Your task to perform on an android device: Set the phone to "Do not disturb". Image 0: 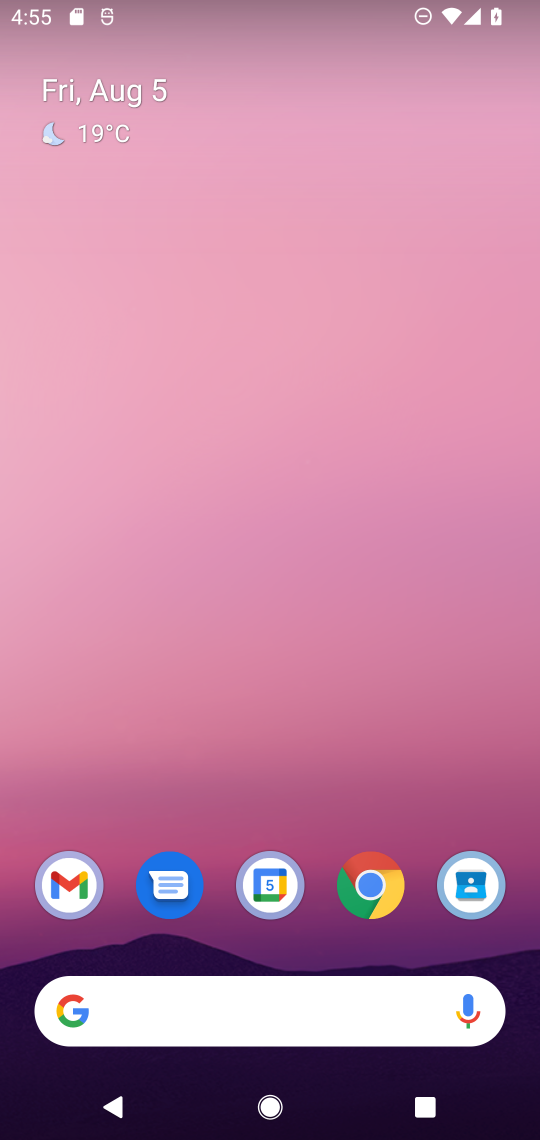
Step 0: drag from (307, 963) to (269, 47)
Your task to perform on an android device: Set the phone to "Do not disturb". Image 1: 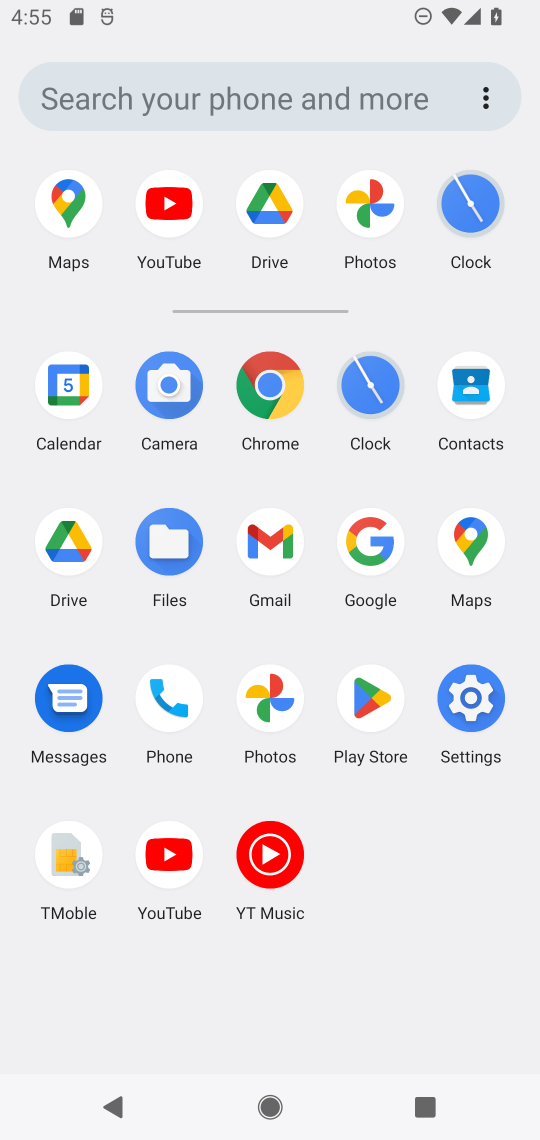
Step 1: click (477, 696)
Your task to perform on an android device: Set the phone to "Do not disturb". Image 2: 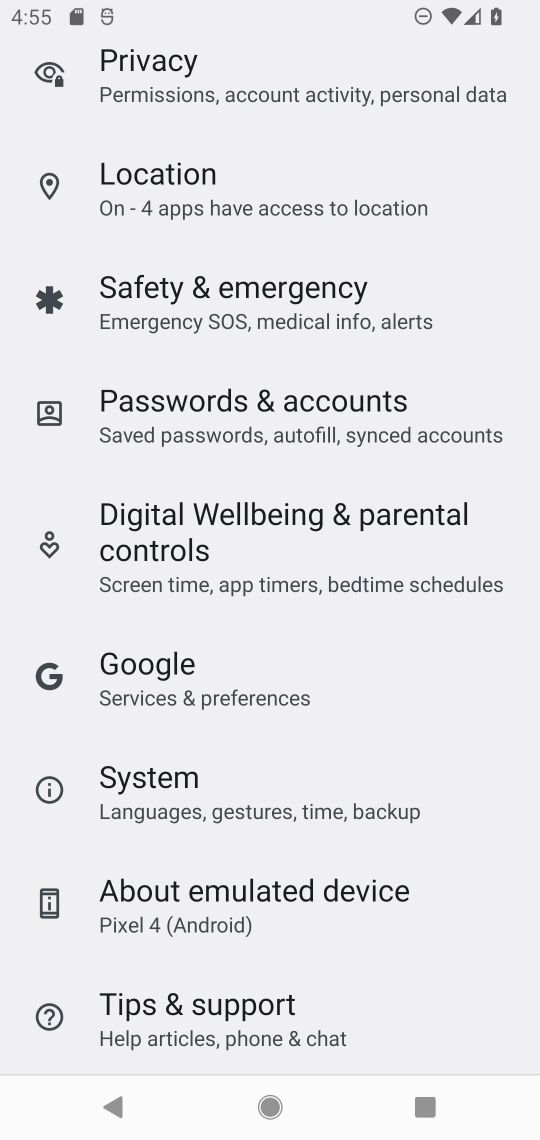
Step 2: drag from (147, 268) to (245, 826)
Your task to perform on an android device: Set the phone to "Do not disturb". Image 3: 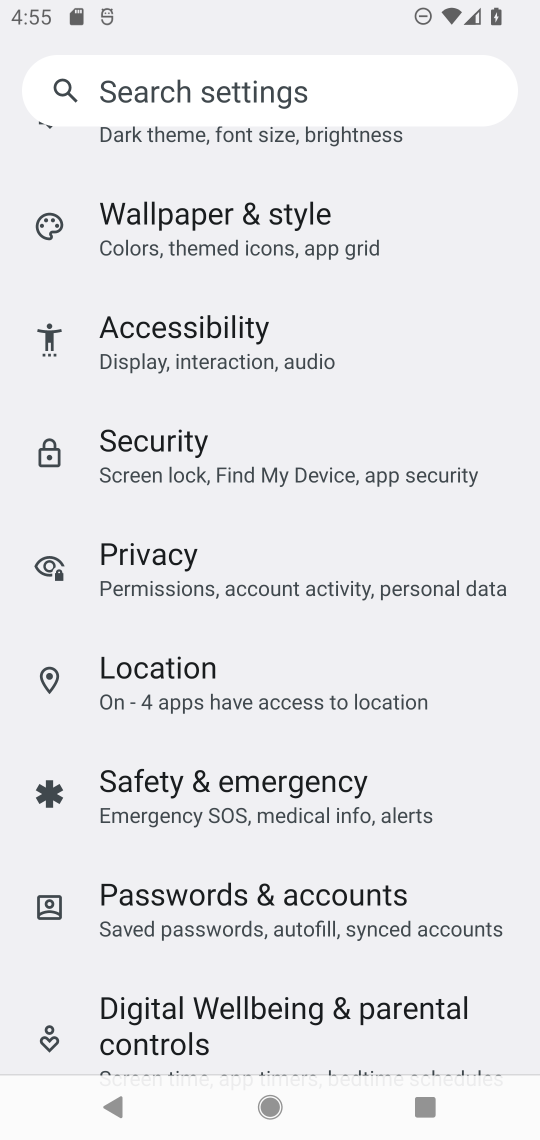
Step 3: drag from (205, 275) to (266, 795)
Your task to perform on an android device: Set the phone to "Do not disturb". Image 4: 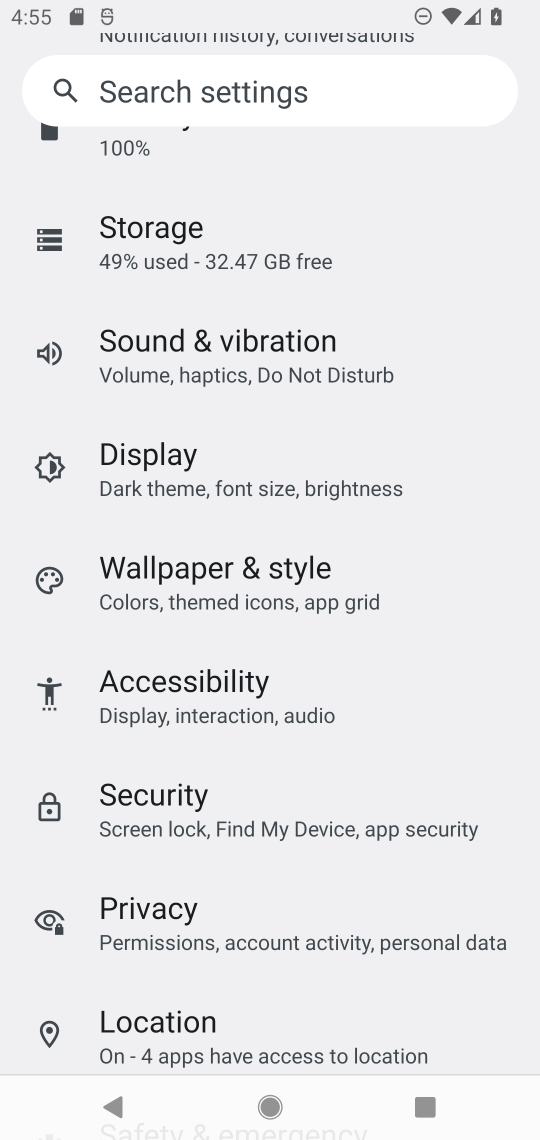
Step 4: drag from (211, 343) to (251, 729)
Your task to perform on an android device: Set the phone to "Do not disturb". Image 5: 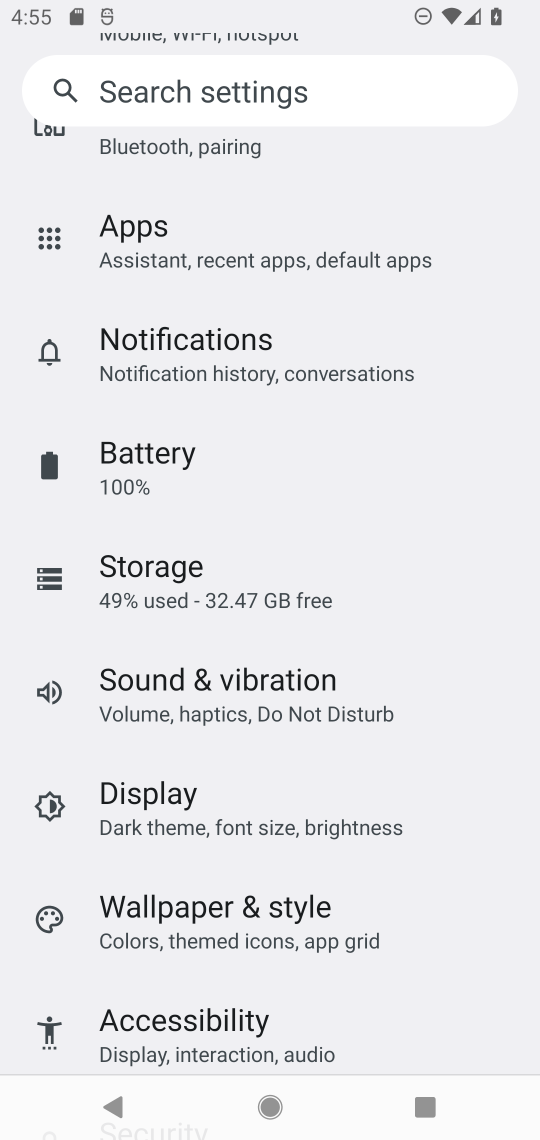
Step 5: click (269, 691)
Your task to perform on an android device: Set the phone to "Do not disturb". Image 6: 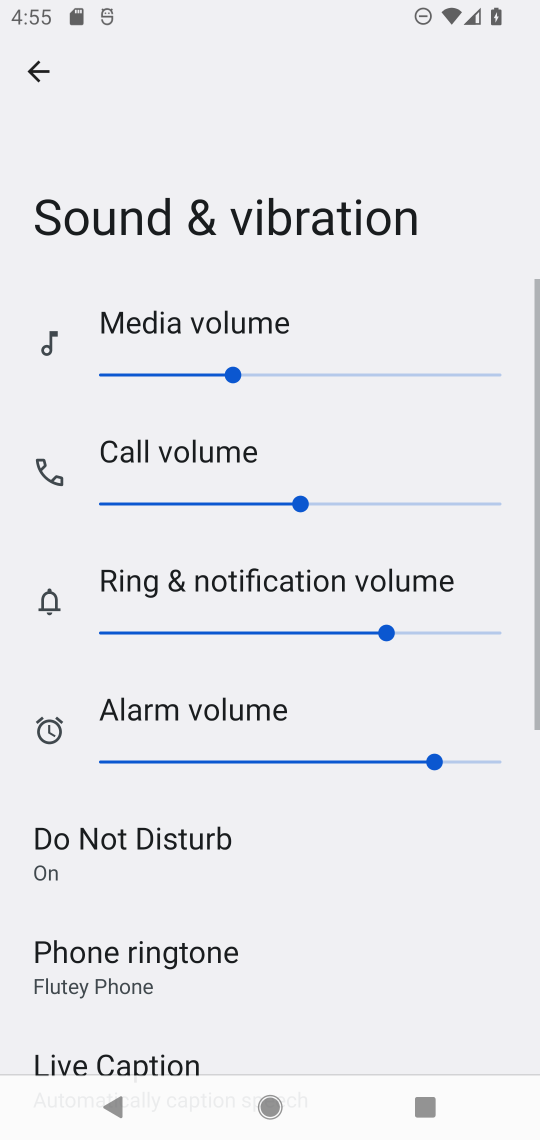
Step 6: drag from (259, 957) to (242, 437)
Your task to perform on an android device: Set the phone to "Do not disturb". Image 7: 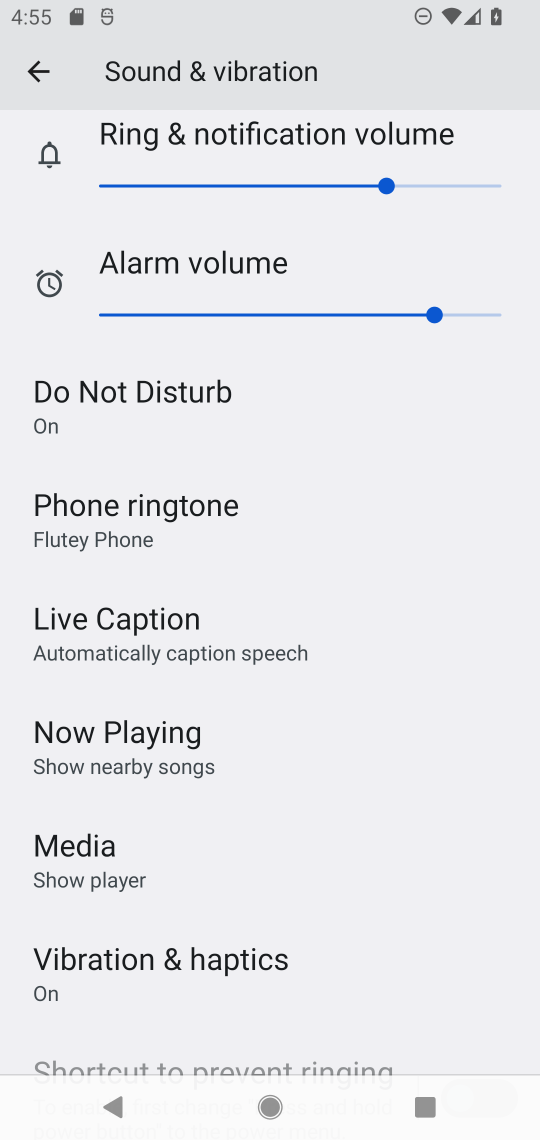
Step 7: drag from (227, 960) to (225, 411)
Your task to perform on an android device: Set the phone to "Do not disturb". Image 8: 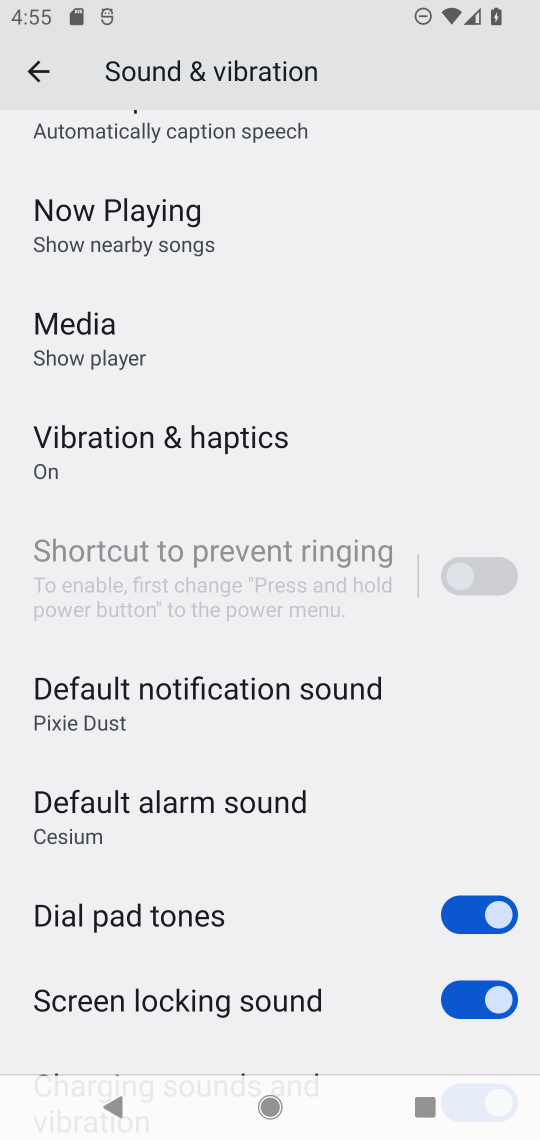
Step 8: drag from (249, 800) to (253, 873)
Your task to perform on an android device: Set the phone to "Do not disturb". Image 9: 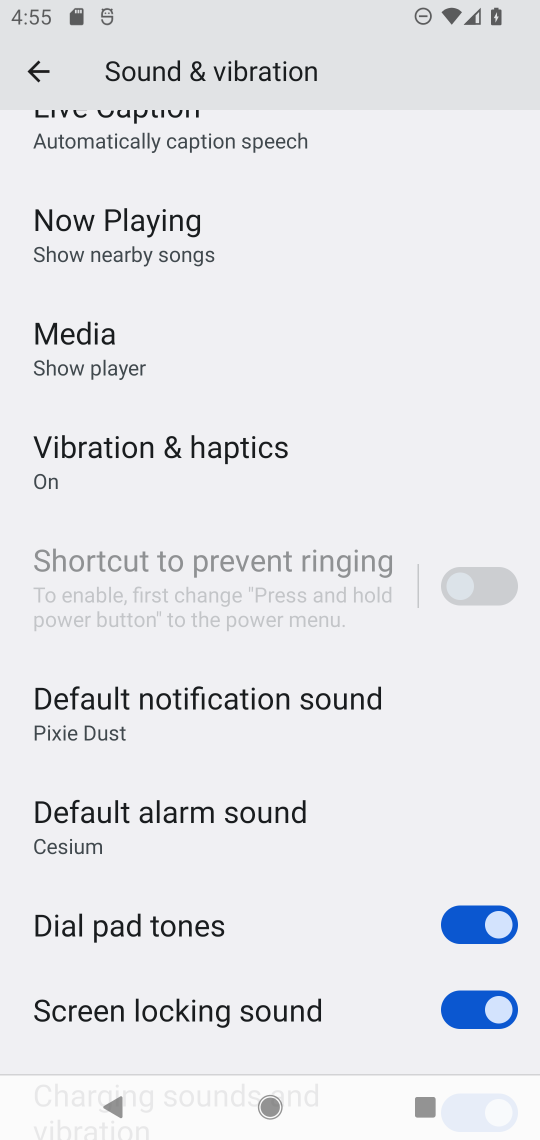
Step 9: drag from (312, 316) to (302, 849)
Your task to perform on an android device: Set the phone to "Do not disturb". Image 10: 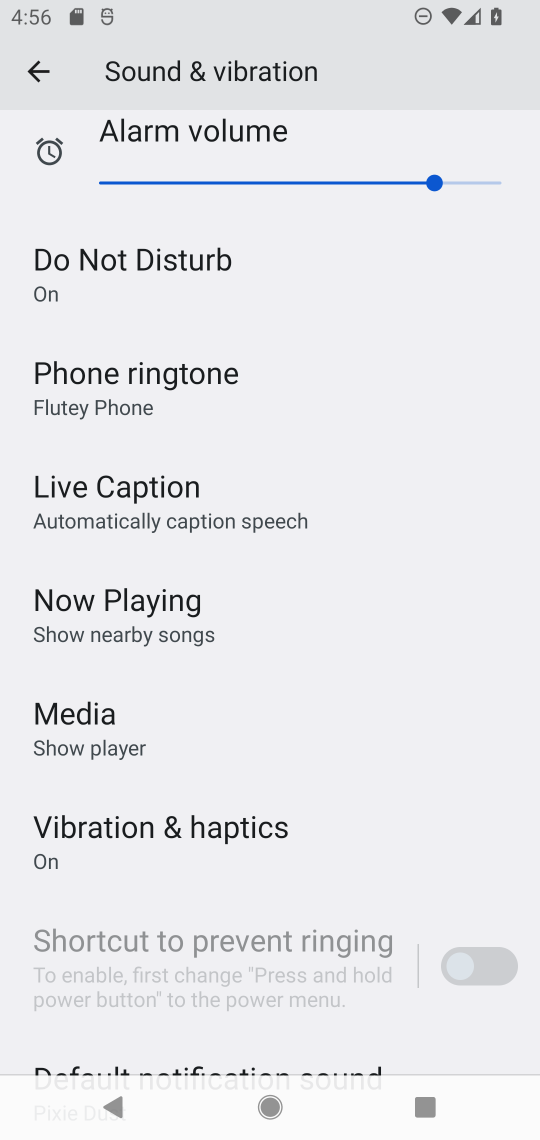
Step 10: click (109, 251)
Your task to perform on an android device: Set the phone to "Do not disturb". Image 11: 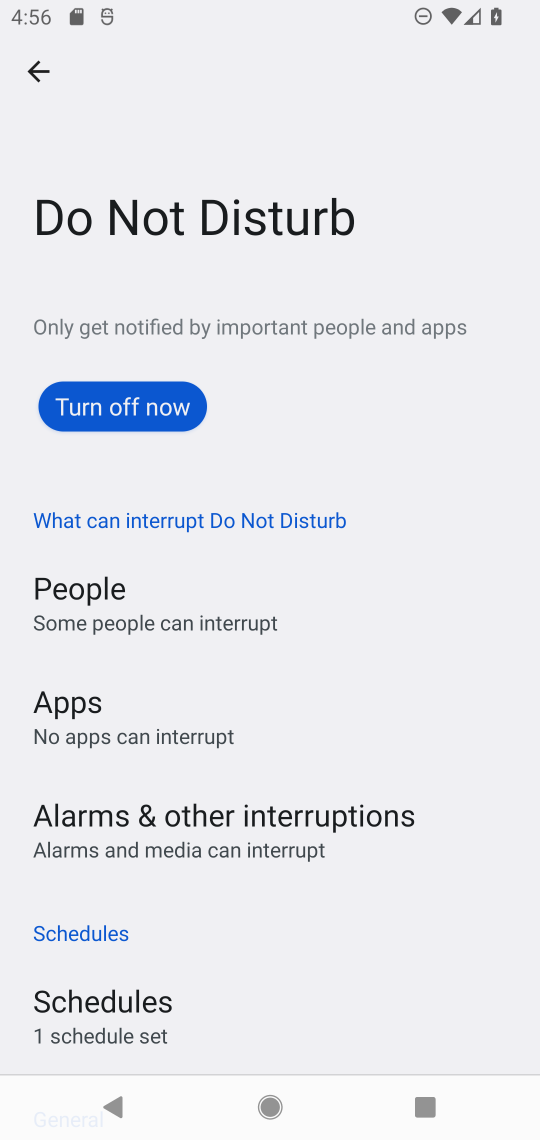
Step 11: task complete